Your task to perform on an android device: empty trash in the gmail app Image 0: 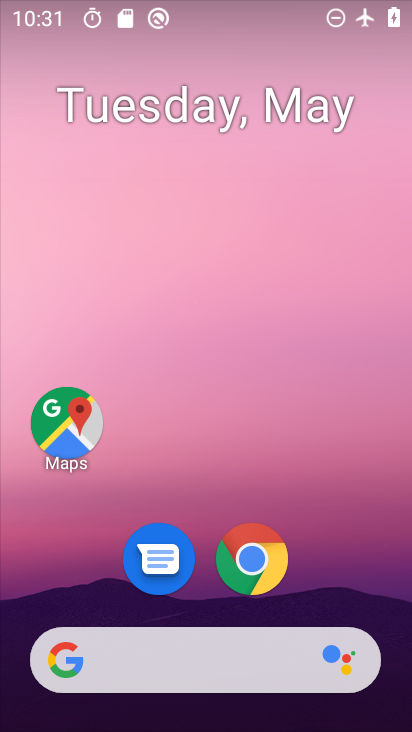
Step 0: drag from (379, 643) to (316, 82)
Your task to perform on an android device: empty trash in the gmail app Image 1: 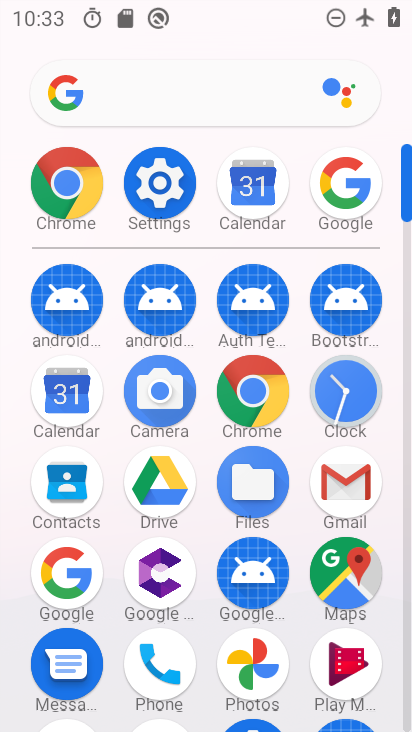
Step 1: click (344, 495)
Your task to perform on an android device: empty trash in the gmail app Image 2: 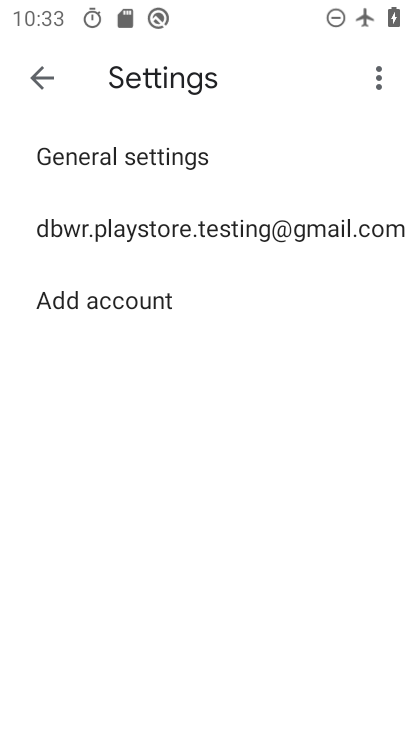
Step 2: press back button
Your task to perform on an android device: empty trash in the gmail app Image 3: 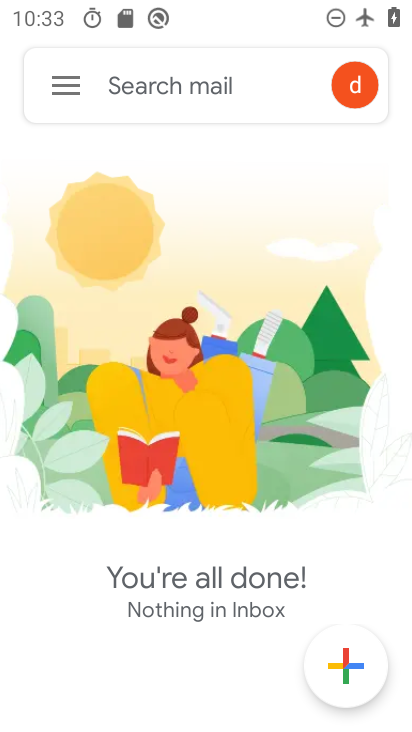
Step 3: click (81, 88)
Your task to perform on an android device: empty trash in the gmail app Image 4: 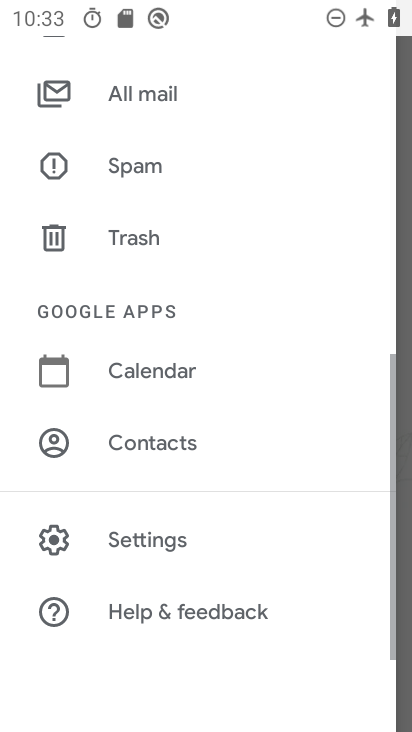
Step 4: click (147, 234)
Your task to perform on an android device: empty trash in the gmail app Image 5: 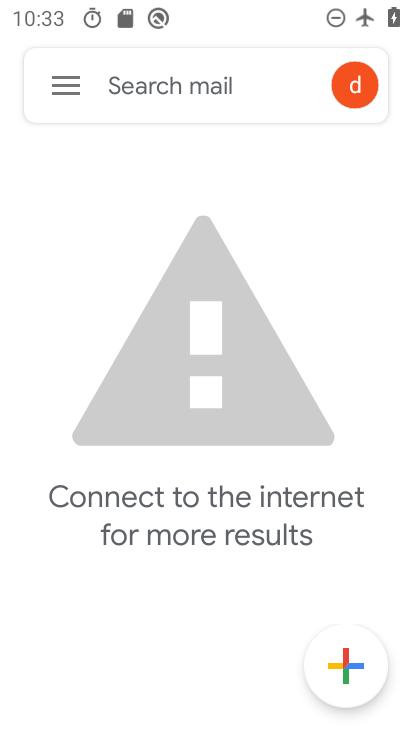
Step 5: task complete